Your task to perform on an android device: open device folders in google photos Image 0: 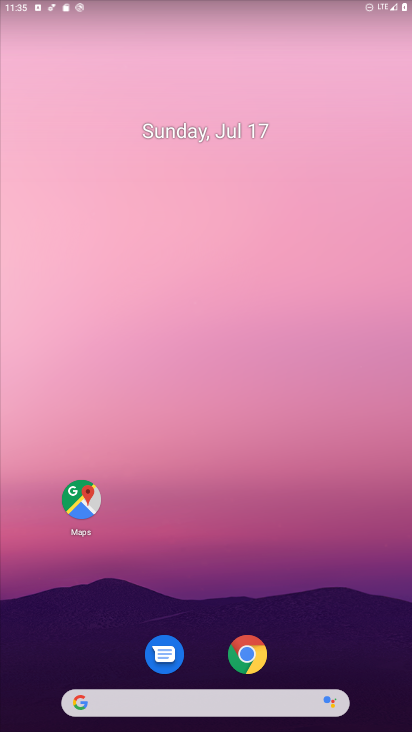
Step 0: drag from (200, 615) to (197, 195)
Your task to perform on an android device: open device folders in google photos Image 1: 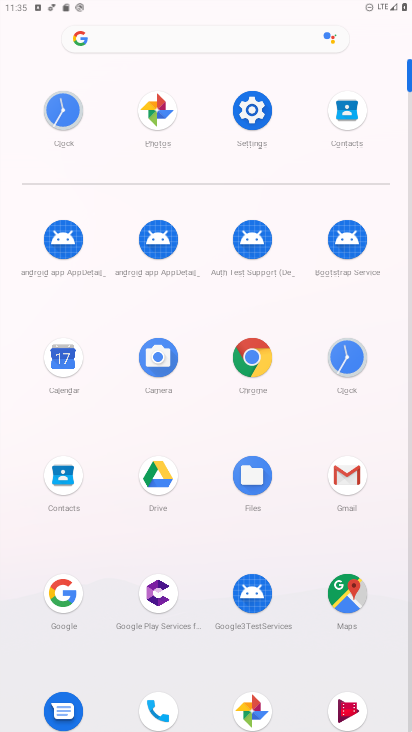
Step 1: drag from (123, 550) to (127, 322)
Your task to perform on an android device: open device folders in google photos Image 2: 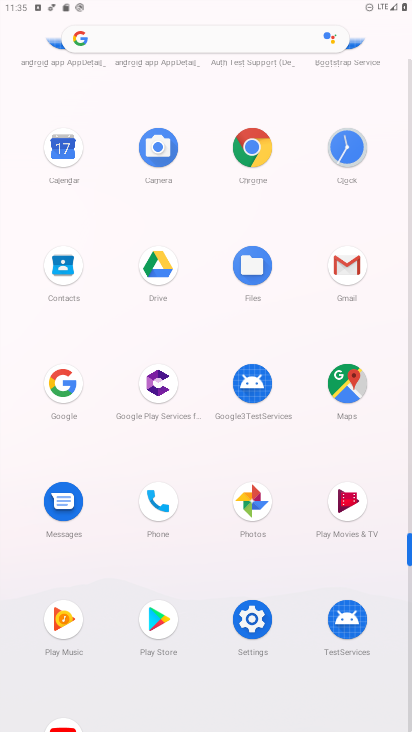
Step 2: drag from (137, 571) to (170, 301)
Your task to perform on an android device: open device folders in google photos Image 3: 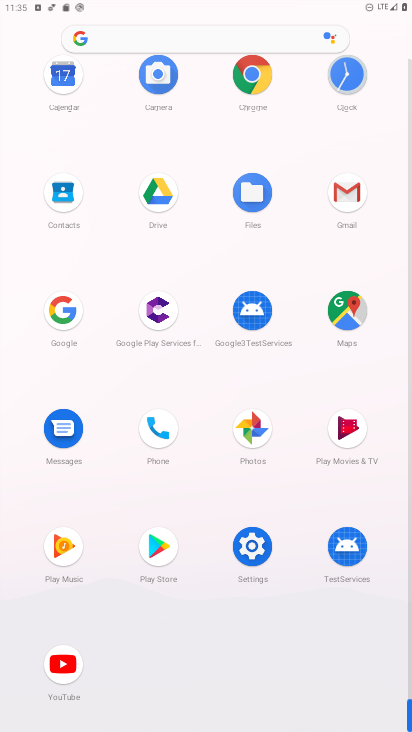
Step 3: drag from (218, 291) to (230, 392)
Your task to perform on an android device: open device folders in google photos Image 4: 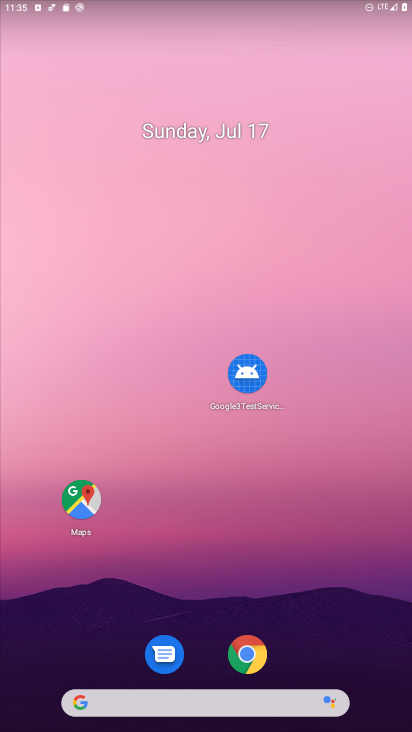
Step 4: drag from (204, 582) to (193, 224)
Your task to perform on an android device: open device folders in google photos Image 5: 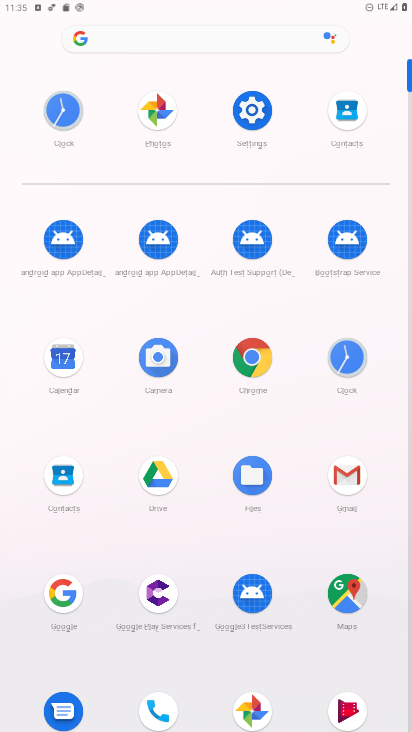
Step 5: drag from (203, 519) to (205, 234)
Your task to perform on an android device: open device folders in google photos Image 6: 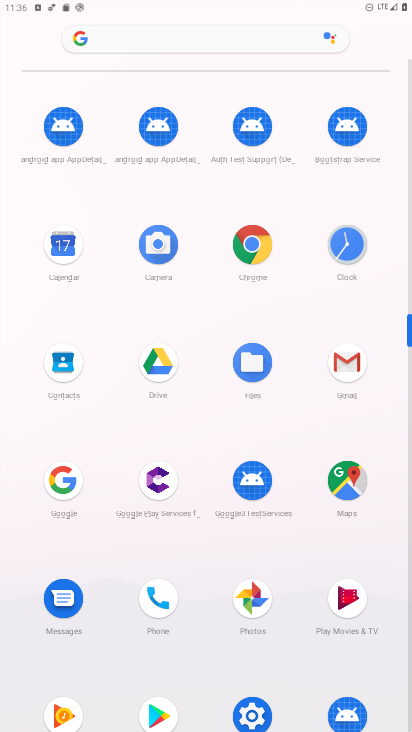
Step 6: click (248, 582)
Your task to perform on an android device: open device folders in google photos Image 7: 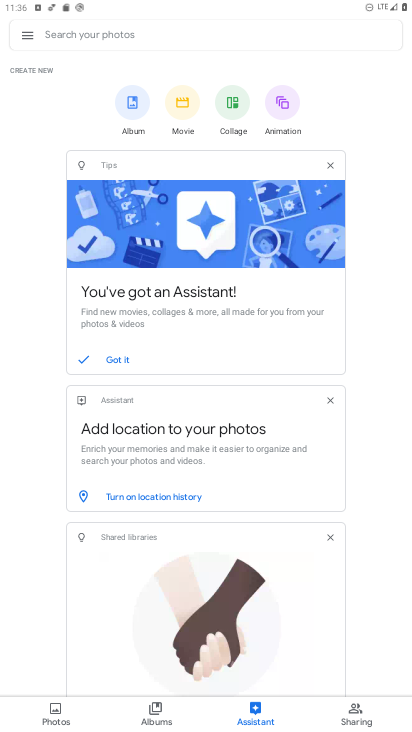
Step 7: click (58, 705)
Your task to perform on an android device: open device folders in google photos Image 8: 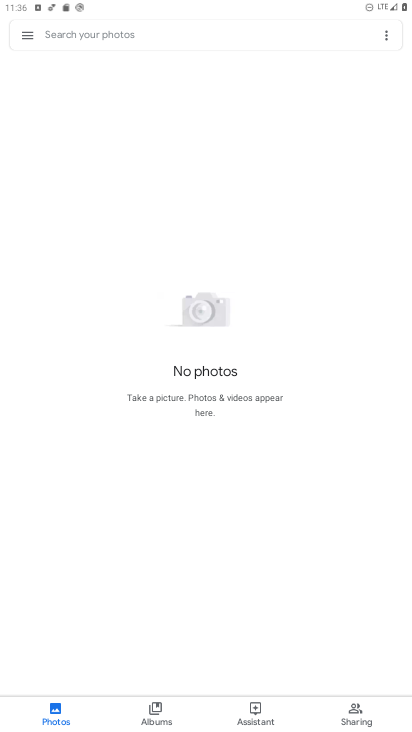
Step 8: click (31, 47)
Your task to perform on an android device: open device folders in google photos Image 9: 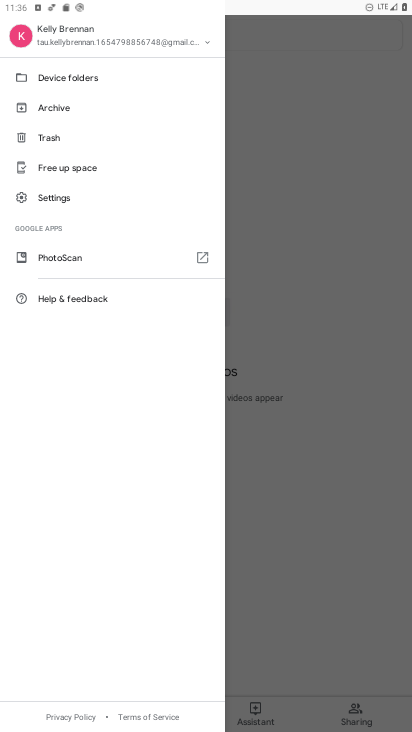
Step 9: click (81, 81)
Your task to perform on an android device: open device folders in google photos Image 10: 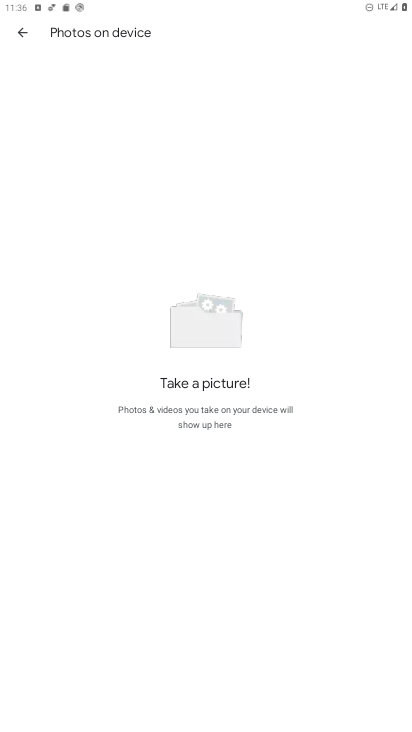
Step 10: task complete